Your task to perform on an android device: delete browsing data in the chrome app Image 0: 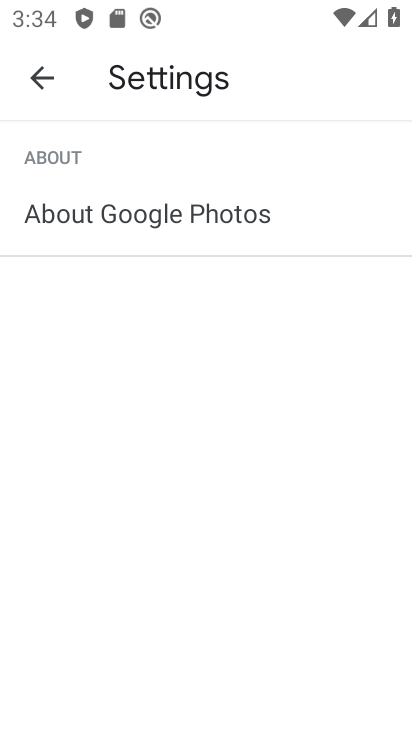
Step 0: press home button
Your task to perform on an android device: delete browsing data in the chrome app Image 1: 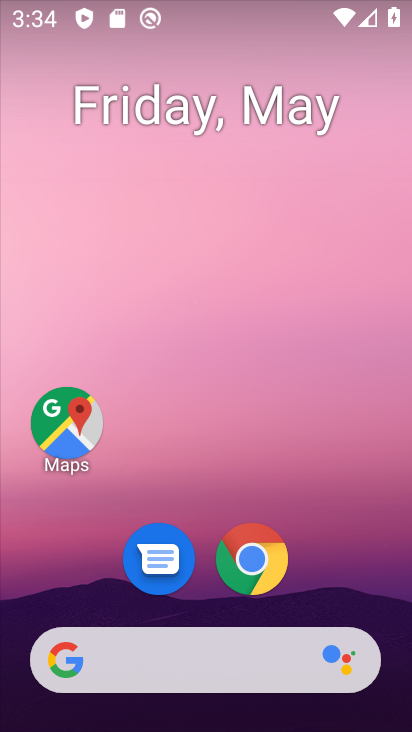
Step 1: click (243, 559)
Your task to perform on an android device: delete browsing data in the chrome app Image 2: 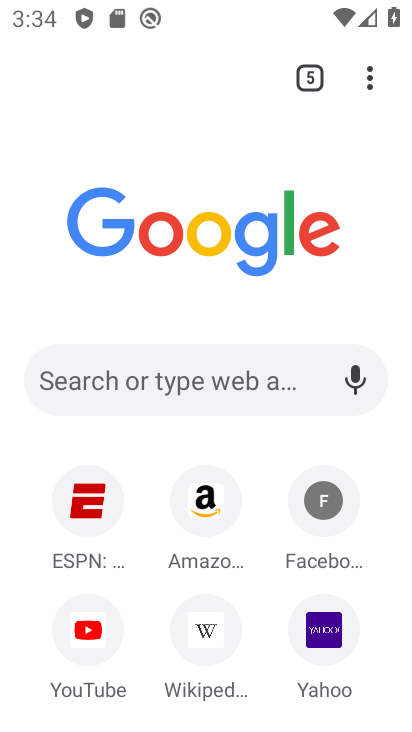
Step 2: click (360, 74)
Your task to perform on an android device: delete browsing data in the chrome app Image 3: 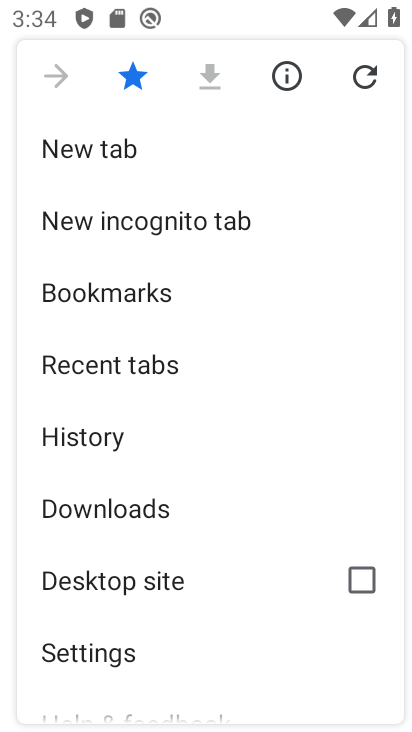
Step 3: drag from (173, 658) to (181, 147)
Your task to perform on an android device: delete browsing data in the chrome app Image 4: 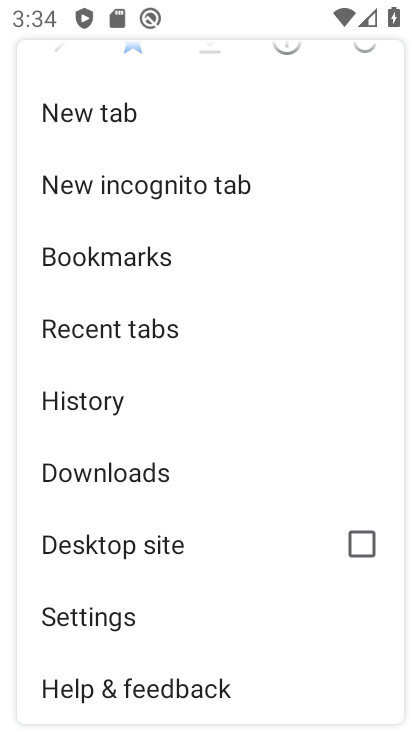
Step 4: click (99, 602)
Your task to perform on an android device: delete browsing data in the chrome app Image 5: 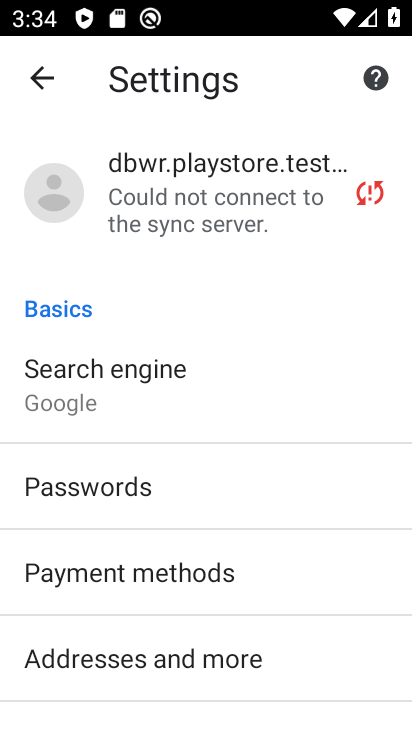
Step 5: drag from (229, 621) to (239, 182)
Your task to perform on an android device: delete browsing data in the chrome app Image 6: 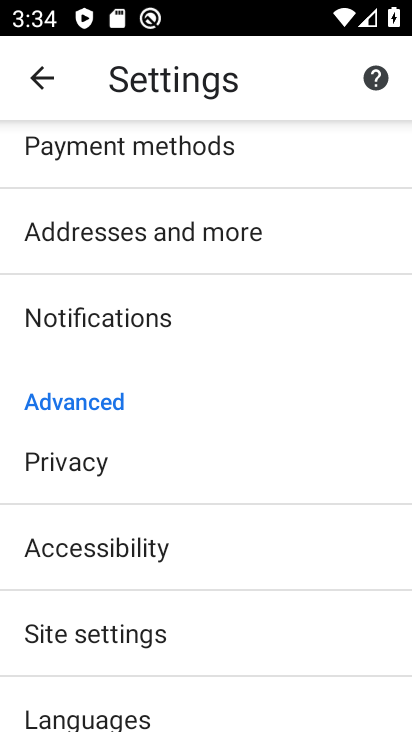
Step 6: drag from (188, 634) to (198, 256)
Your task to perform on an android device: delete browsing data in the chrome app Image 7: 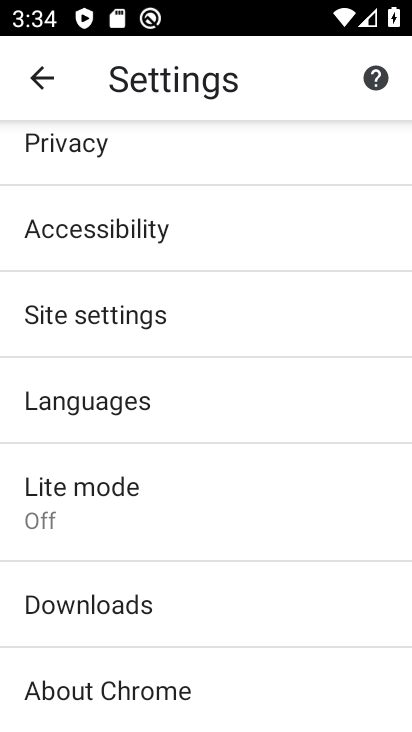
Step 7: drag from (134, 559) to (152, 193)
Your task to perform on an android device: delete browsing data in the chrome app Image 8: 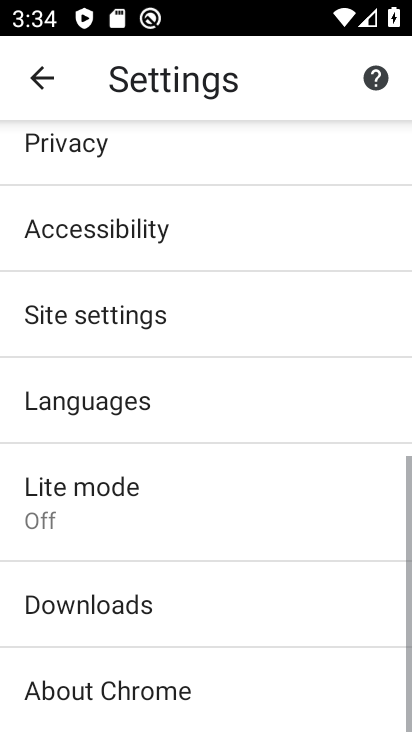
Step 8: drag from (154, 273) to (199, 687)
Your task to perform on an android device: delete browsing data in the chrome app Image 9: 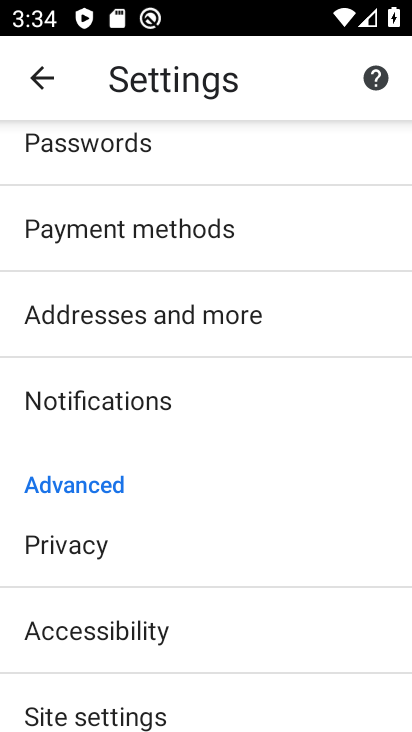
Step 9: click (154, 564)
Your task to perform on an android device: delete browsing data in the chrome app Image 10: 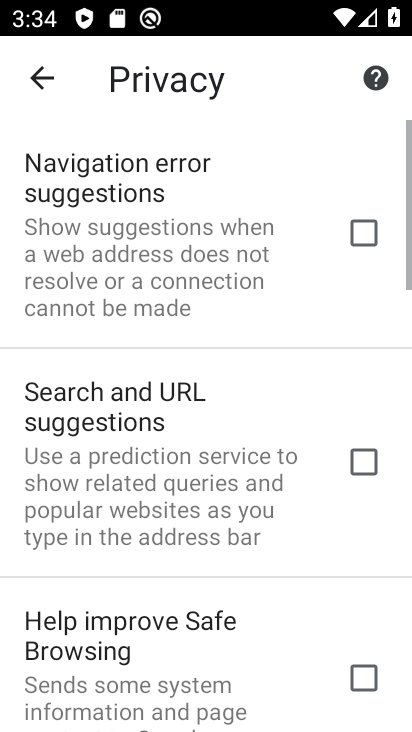
Step 10: drag from (150, 651) to (156, 220)
Your task to perform on an android device: delete browsing data in the chrome app Image 11: 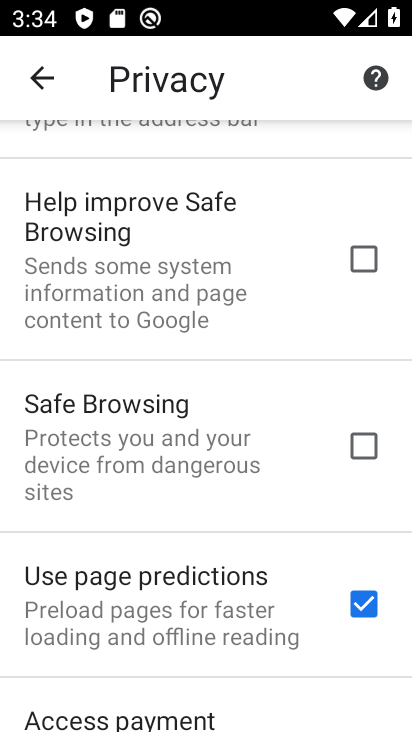
Step 11: drag from (228, 684) to (235, 205)
Your task to perform on an android device: delete browsing data in the chrome app Image 12: 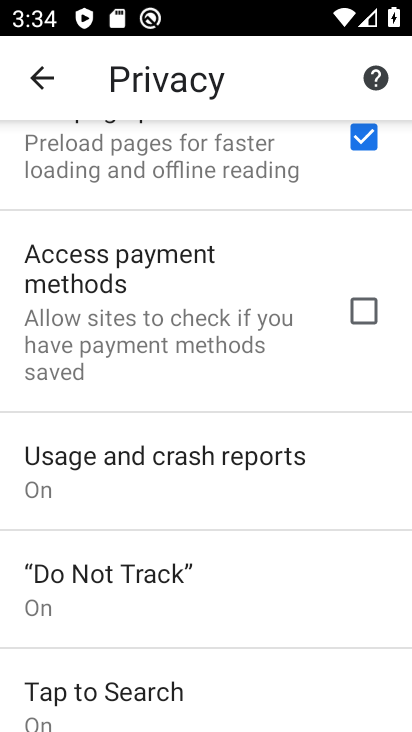
Step 12: drag from (178, 617) to (164, 182)
Your task to perform on an android device: delete browsing data in the chrome app Image 13: 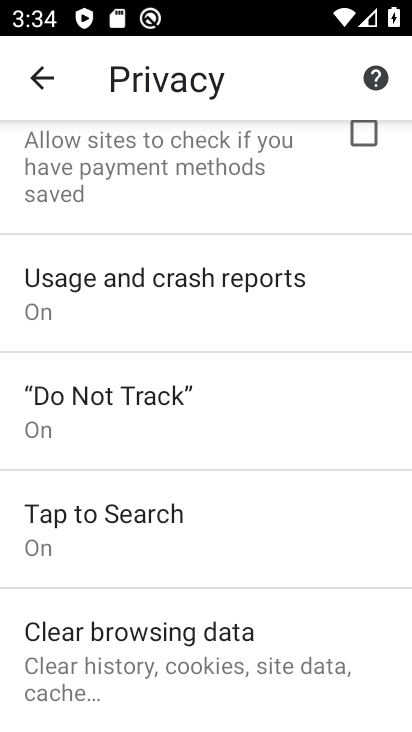
Step 13: click (186, 641)
Your task to perform on an android device: delete browsing data in the chrome app Image 14: 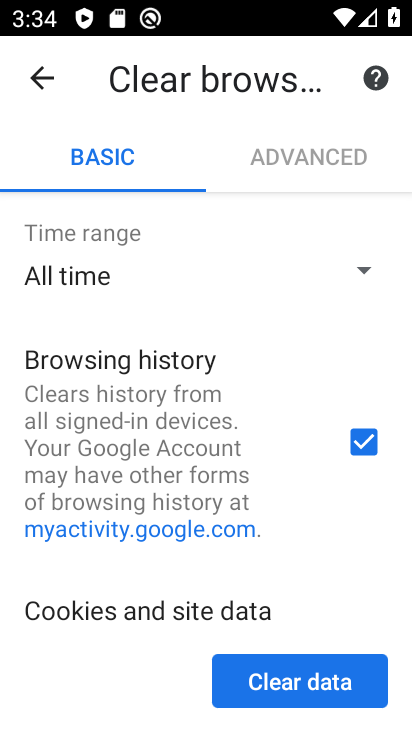
Step 14: drag from (254, 589) to (213, 202)
Your task to perform on an android device: delete browsing data in the chrome app Image 15: 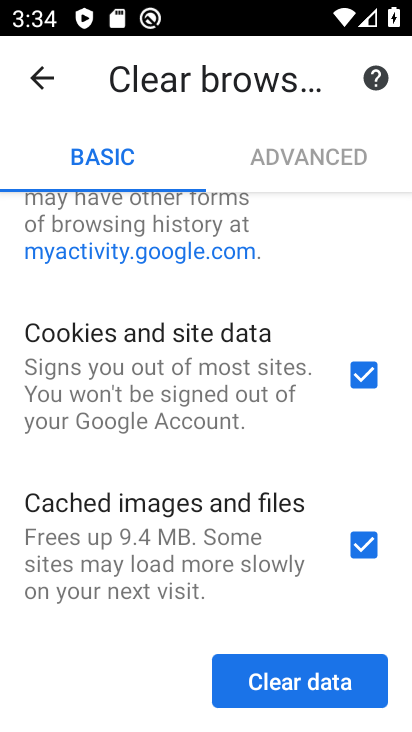
Step 15: click (346, 372)
Your task to perform on an android device: delete browsing data in the chrome app Image 16: 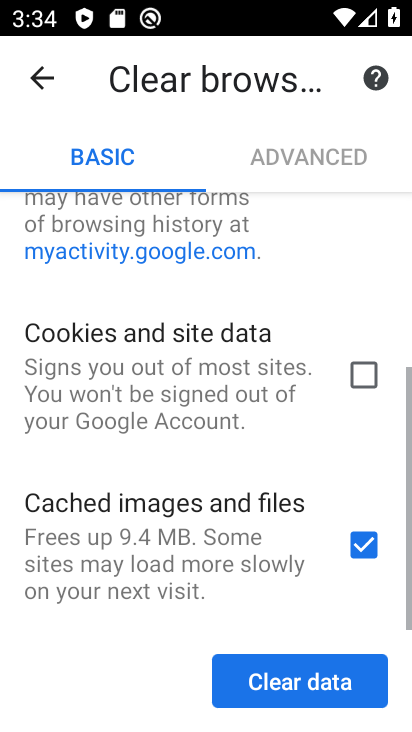
Step 16: click (369, 541)
Your task to perform on an android device: delete browsing data in the chrome app Image 17: 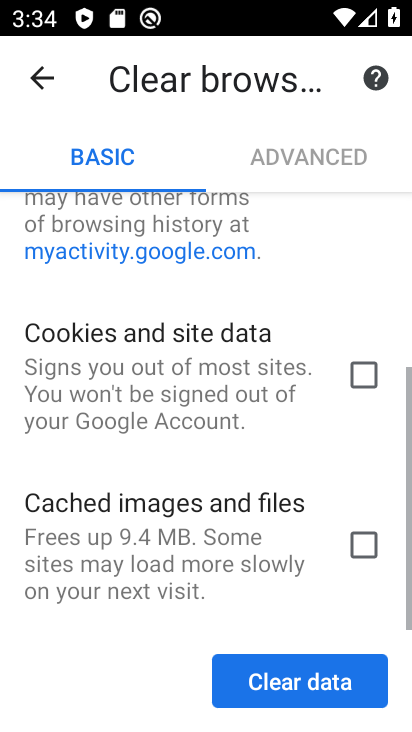
Step 17: drag from (237, 264) to (241, 616)
Your task to perform on an android device: delete browsing data in the chrome app Image 18: 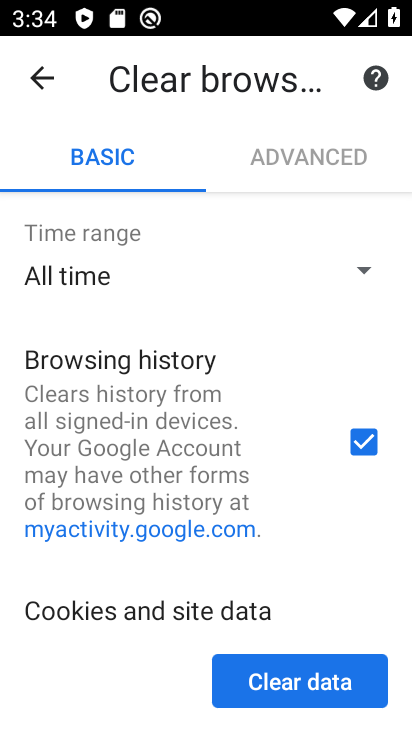
Step 18: click (312, 685)
Your task to perform on an android device: delete browsing data in the chrome app Image 19: 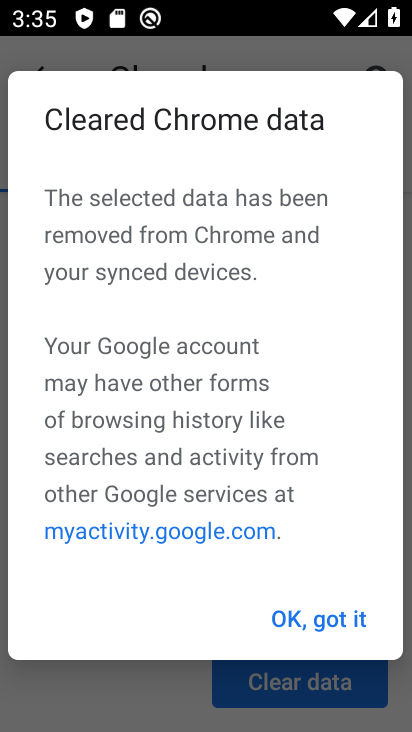
Step 19: click (315, 626)
Your task to perform on an android device: delete browsing data in the chrome app Image 20: 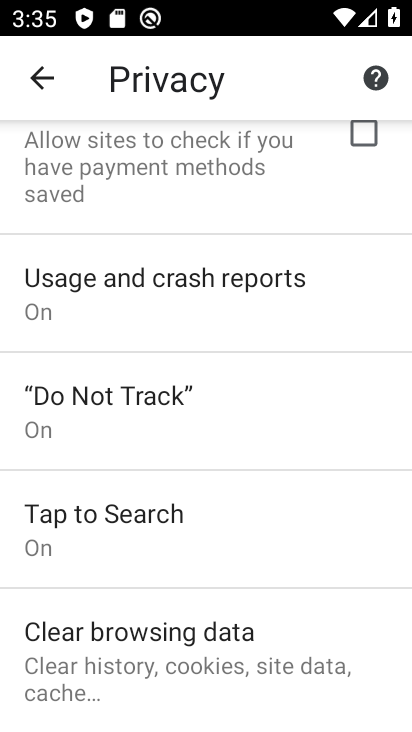
Step 20: task complete